Your task to perform on an android device: What is the recent news? Image 0: 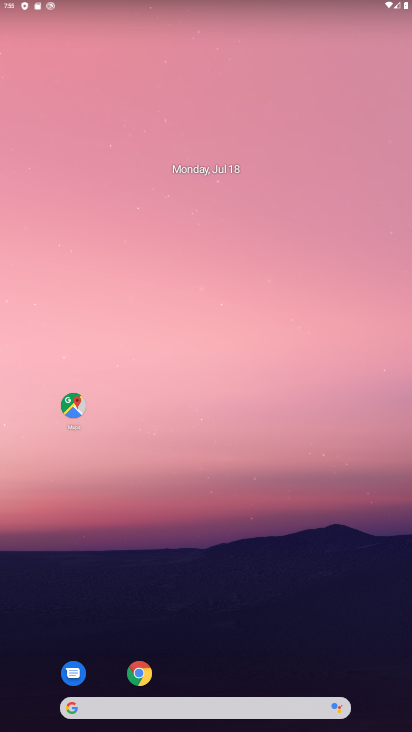
Step 0: click (150, 711)
Your task to perform on an android device: What is the recent news? Image 1: 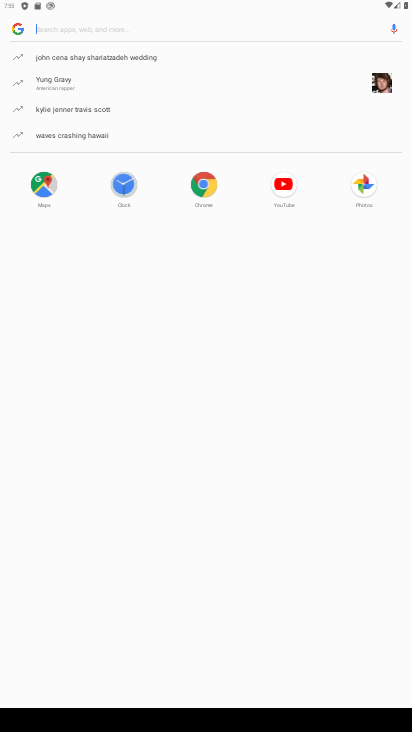
Step 1: type "recent news"
Your task to perform on an android device: What is the recent news? Image 2: 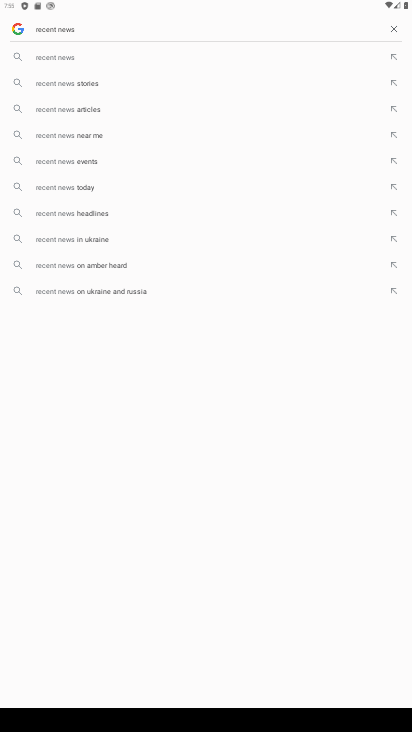
Step 2: click (56, 55)
Your task to perform on an android device: What is the recent news? Image 3: 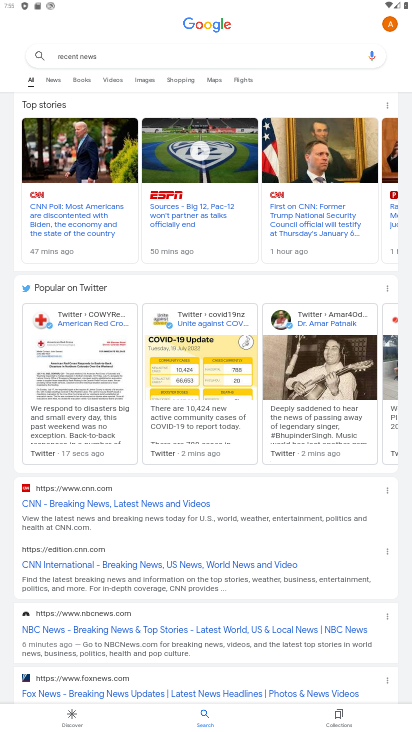
Step 3: task complete